Your task to perform on an android device: toggle notifications settings in the gmail app Image 0: 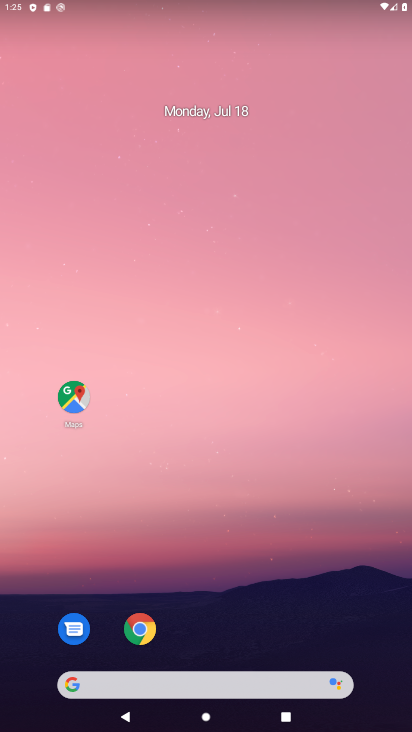
Step 0: press home button
Your task to perform on an android device: toggle notifications settings in the gmail app Image 1: 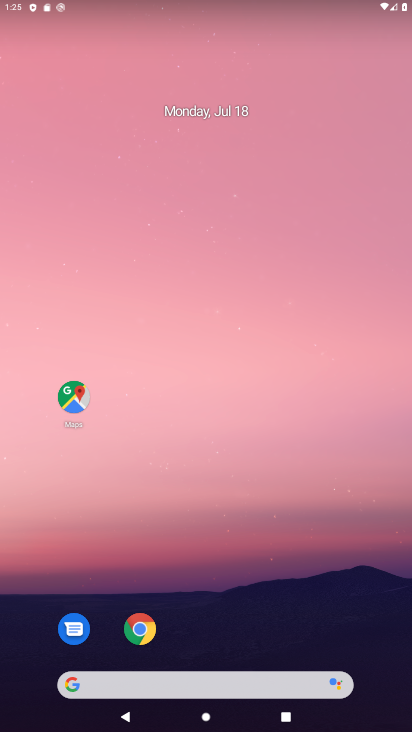
Step 1: drag from (211, 650) to (223, 1)
Your task to perform on an android device: toggle notifications settings in the gmail app Image 2: 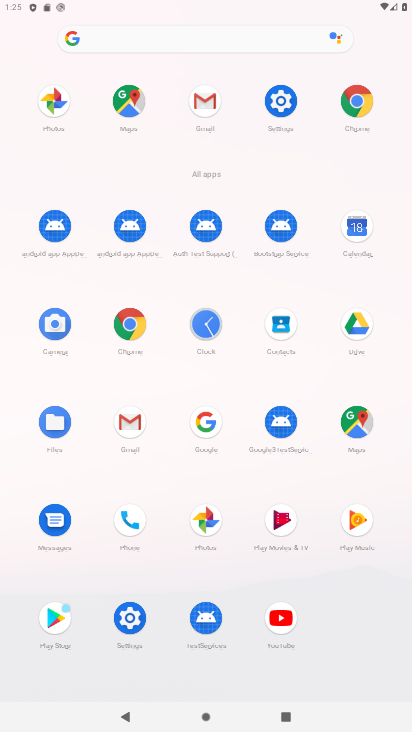
Step 2: click (205, 99)
Your task to perform on an android device: toggle notifications settings in the gmail app Image 3: 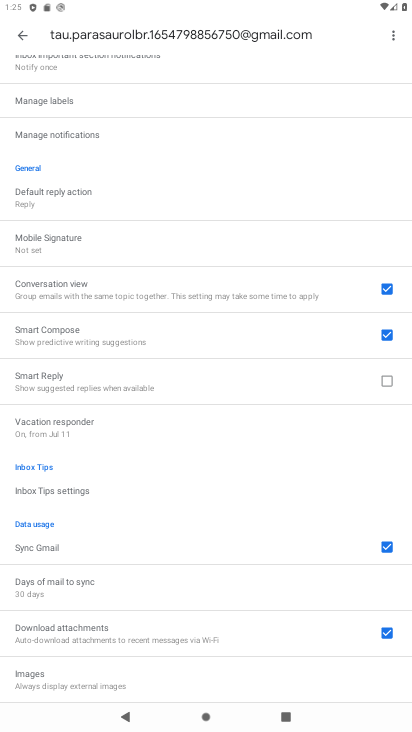
Step 3: click (20, 32)
Your task to perform on an android device: toggle notifications settings in the gmail app Image 4: 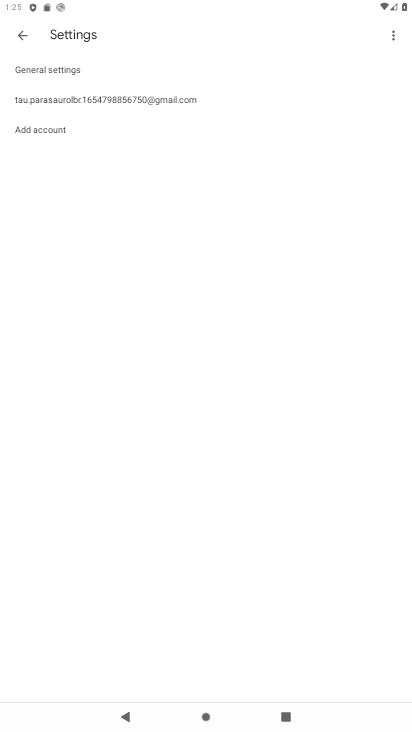
Step 4: click (79, 70)
Your task to perform on an android device: toggle notifications settings in the gmail app Image 5: 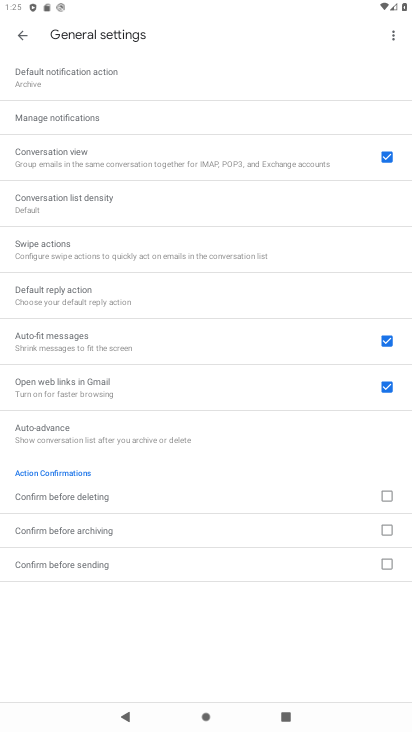
Step 5: click (77, 120)
Your task to perform on an android device: toggle notifications settings in the gmail app Image 6: 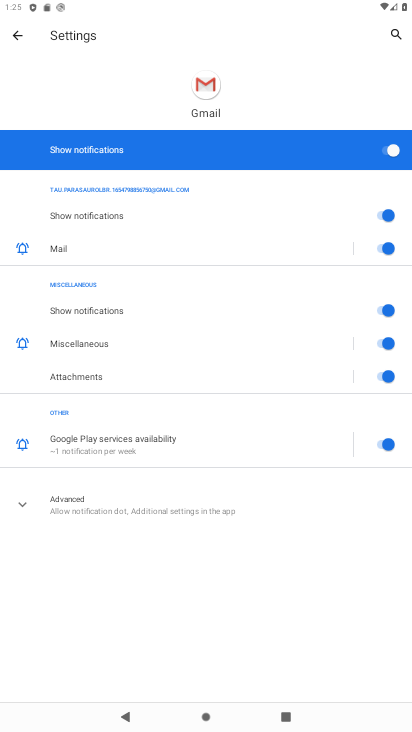
Step 6: click (388, 150)
Your task to perform on an android device: toggle notifications settings in the gmail app Image 7: 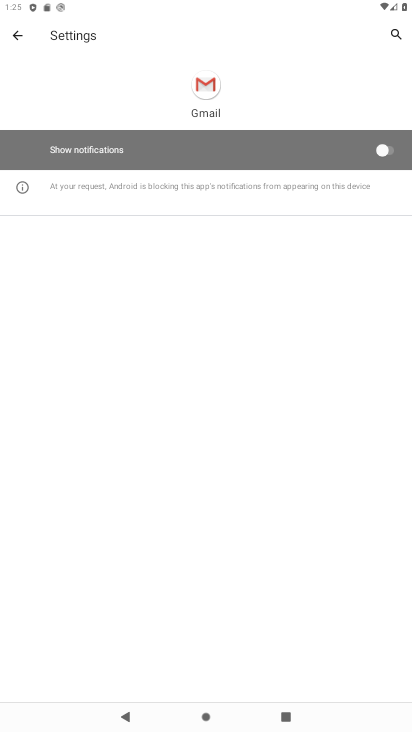
Step 7: task complete